Your task to perform on an android device: Open Google Maps Image 0: 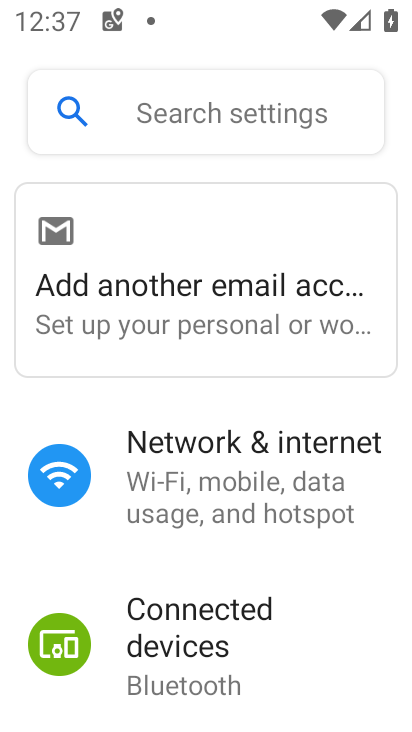
Step 0: press home button
Your task to perform on an android device: Open Google Maps Image 1: 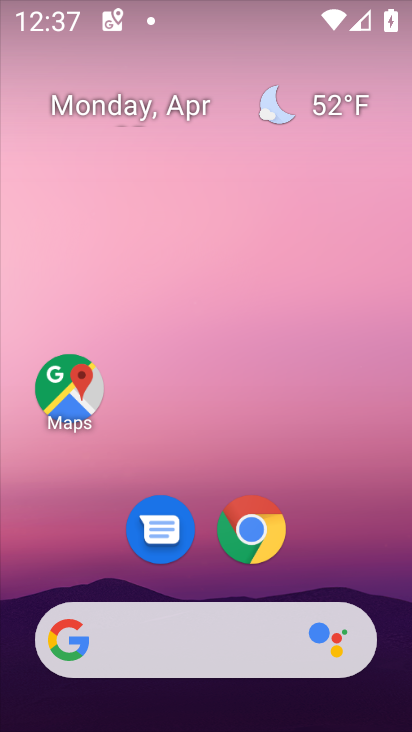
Step 1: drag from (409, 519) to (379, 151)
Your task to perform on an android device: Open Google Maps Image 2: 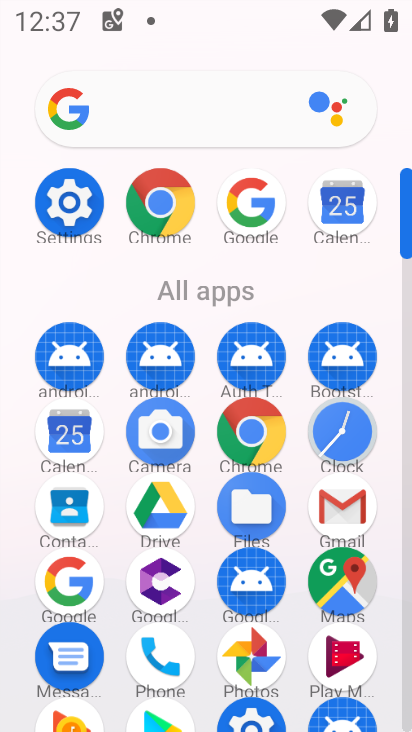
Step 2: click (322, 563)
Your task to perform on an android device: Open Google Maps Image 3: 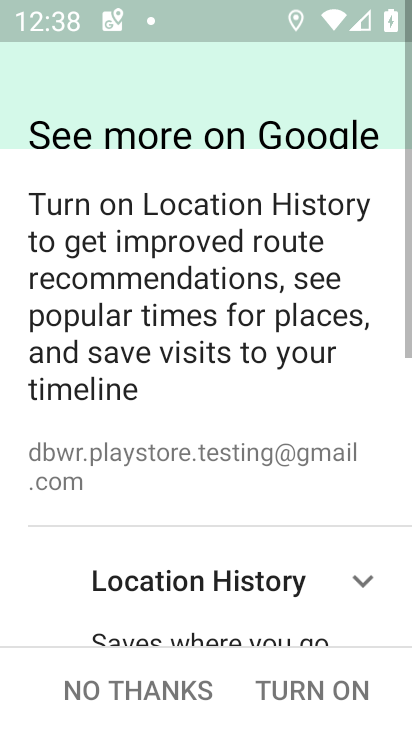
Step 3: task complete